Your task to perform on an android device: check out phone information Image 0: 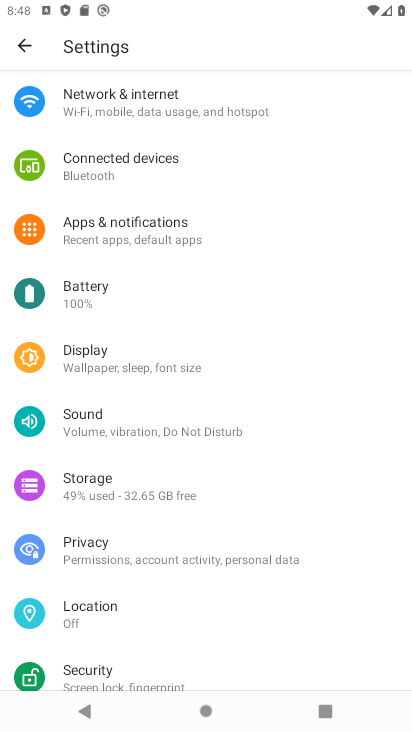
Step 0: press home button
Your task to perform on an android device: check out phone information Image 1: 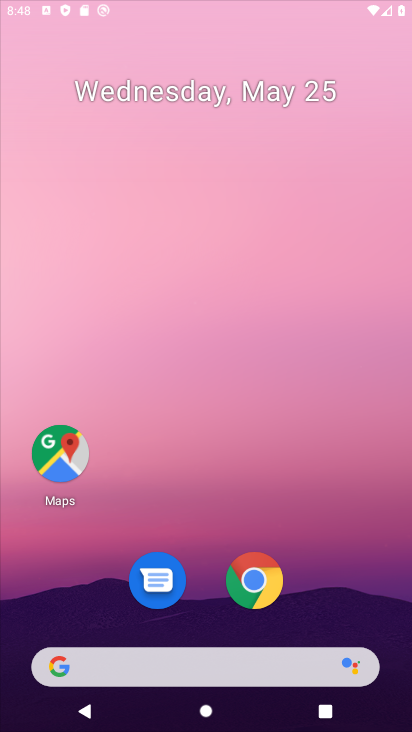
Step 1: drag from (3, 671) to (296, 73)
Your task to perform on an android device: check out phone information Image 2: 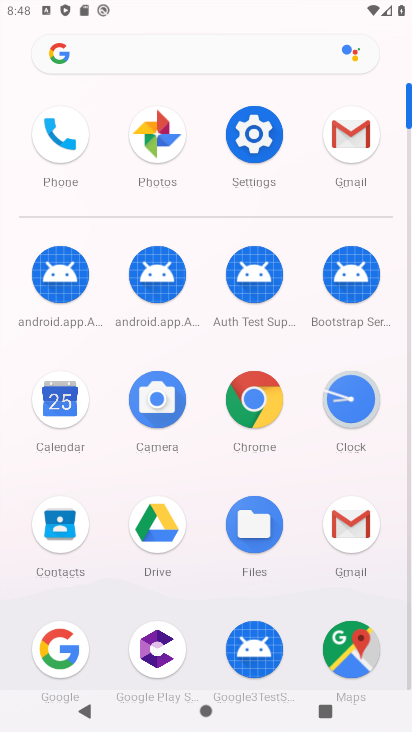
Step 2: click (63, 137)
Your task to perform on an android device: check out phone information Image 3: 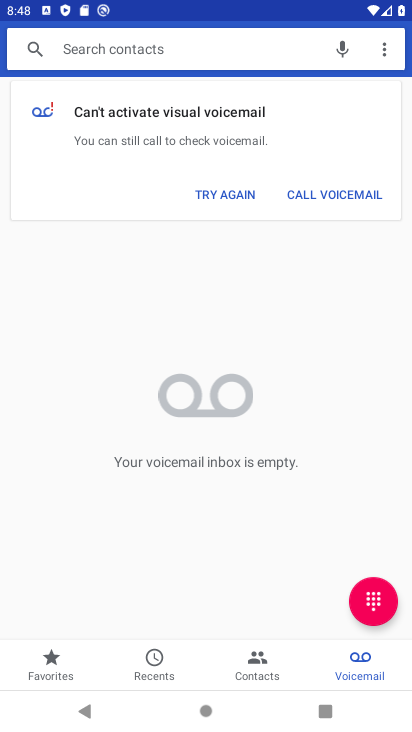
Step 3: click (159, 671)
Your task to perform on an android device: check out phone information Image 4: 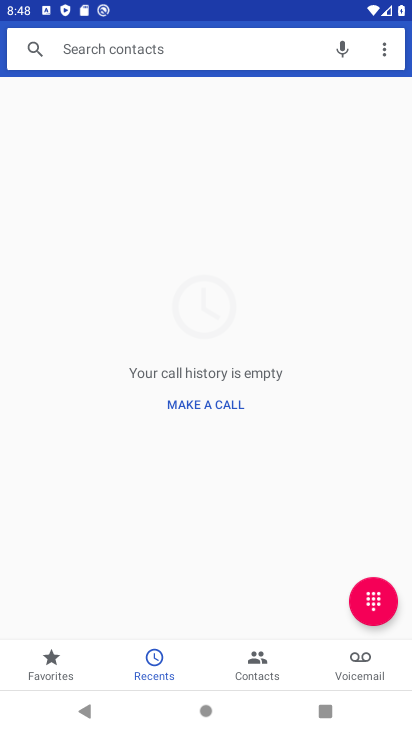
Step 4: task complete